Your task to perform on an android device: turn off smart reply in the gmail app Image 0: 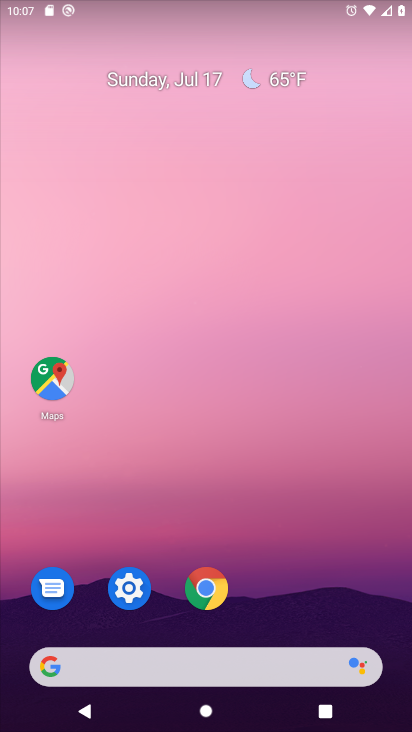
Step 0: drag from (359, 644) to (289, 141)
Your task to perform on an android device: turn off smart reply in the gmail app Image 1: 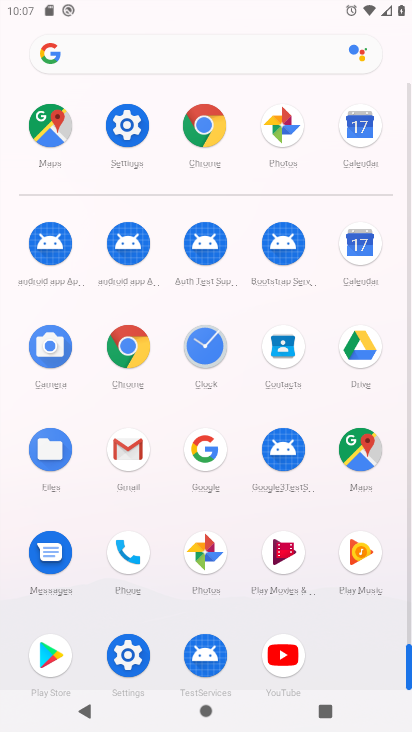
Step 1: click (114, 462)
Your task to perform on an android device: turn off smart reply in the gmail app Image 2: 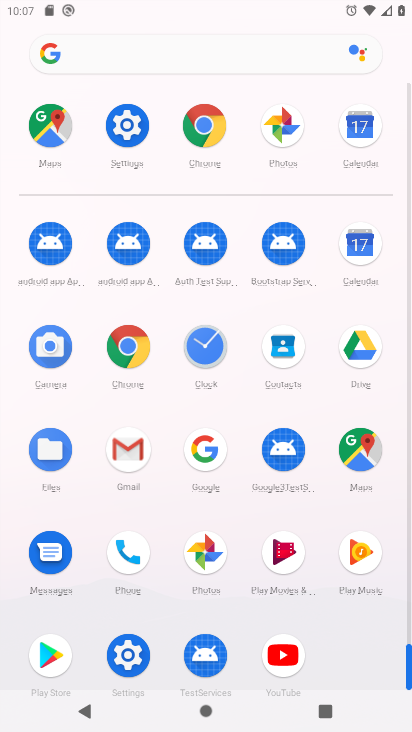
Step 2: click (124, 458)
Your task to perform on an android device: turn off smart reply in the gmail app Image 3: 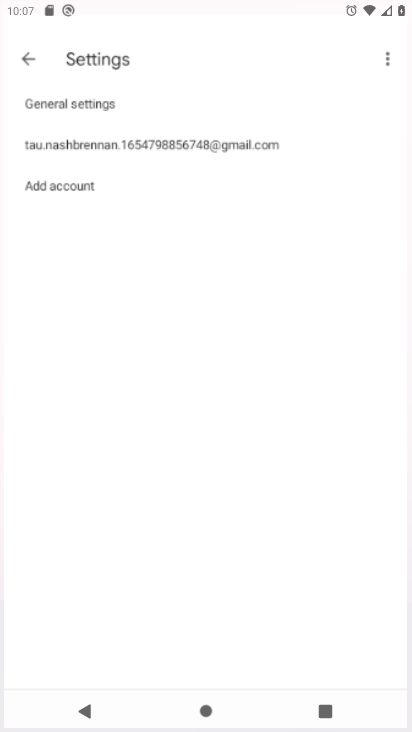
Step 3: click (124, 458)
Your task to perform on an android device: turn off smart reply in the gmail app Image 4: 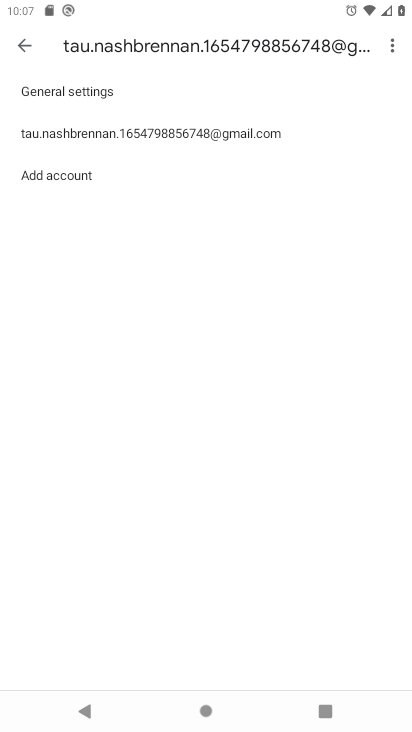
Step 4: click (169, 128)
Your task to perform on an android device: turn off smart reply in the gmail app Image 5: 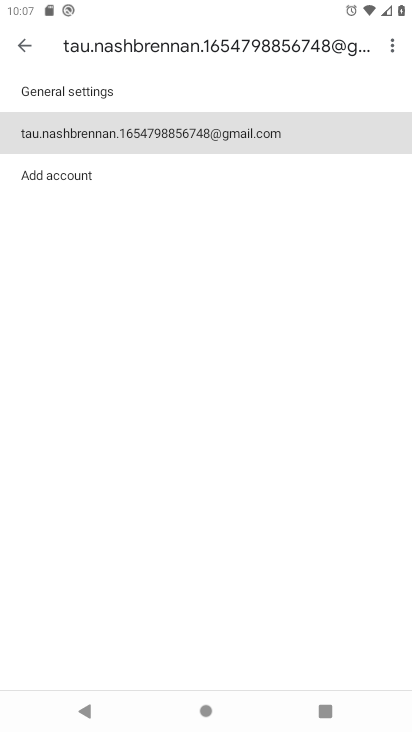
Step 5: click (169, 127)
Your task to perform on an android device: turn off smart reply in the gmail app Image 6: 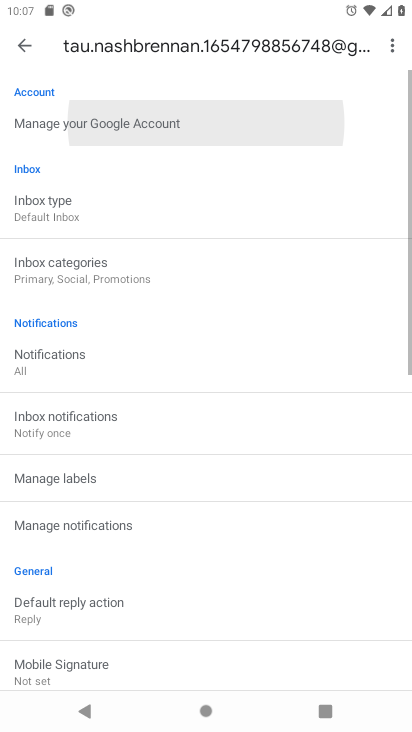
Step 6: click (170, 127)
Your task to perform on an android device: turn off smart reply in the gmail app Image 7: 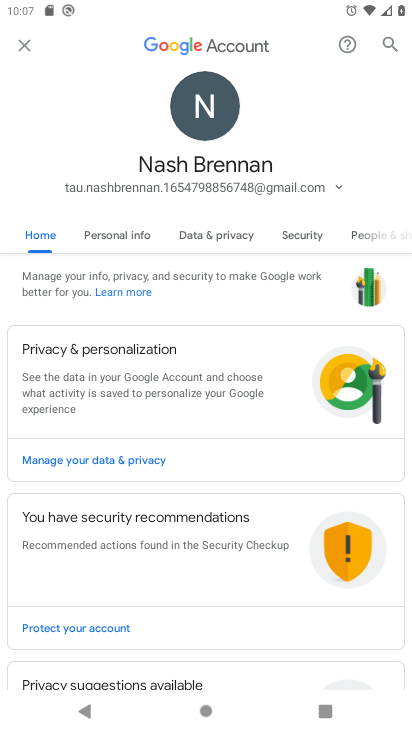
Step 7: click (20, 40)
Your task to perform on an android device: turn off smart reply in the gmail app Image 8: 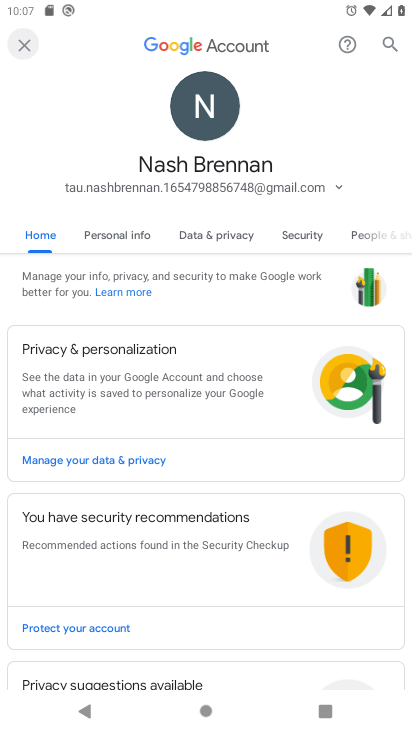
Step 8: click (20, 40)
Your task to perform on an android device: turn off smart reply in the gmail app Image 9: 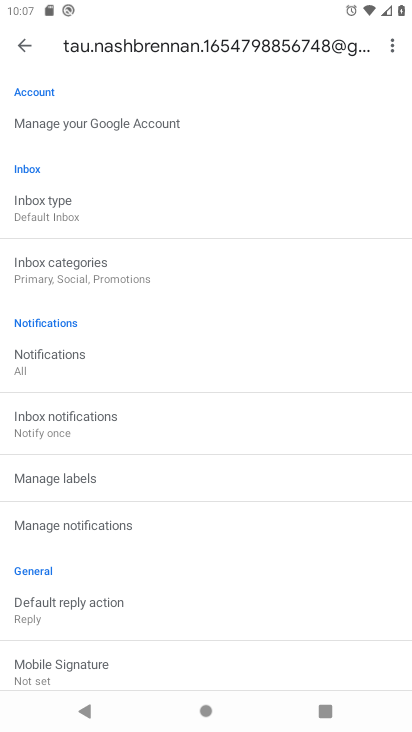
Step 9: task complete